Your task to perform on an android device: Open Android settings Image 0: 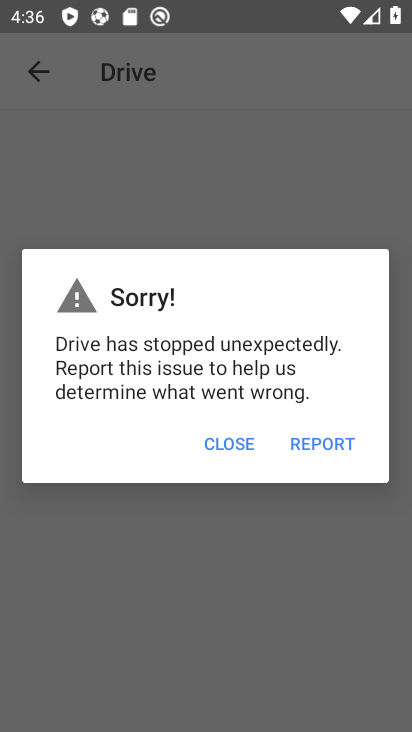
Step 0: press home button
Your task to perform on an android device: Open Android settings Image 1: 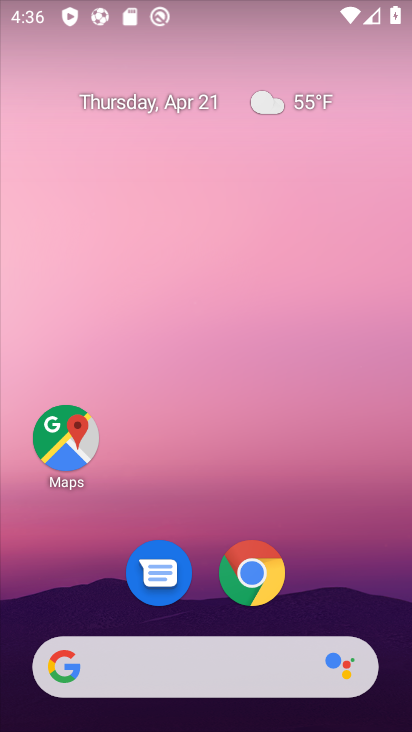
Step 1: drag from (334, 563) to (281, 7)
Your task to perform on an android device: Open Android settings Image 2: 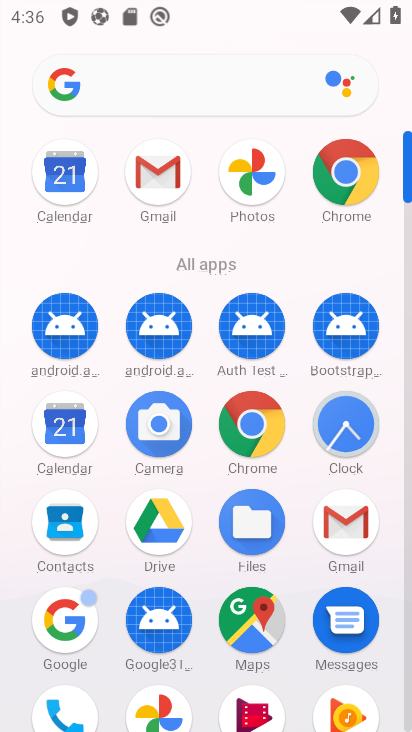
Step 2: click (411, 675)
Your task to perform on an android device: Open Android settings Image 3: 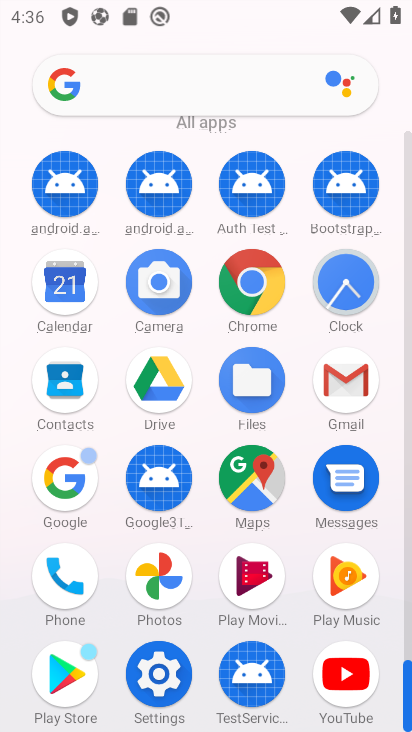
Step 3: click (172, 667)
Your task to perform on an android device: Open Android settings Image 4: 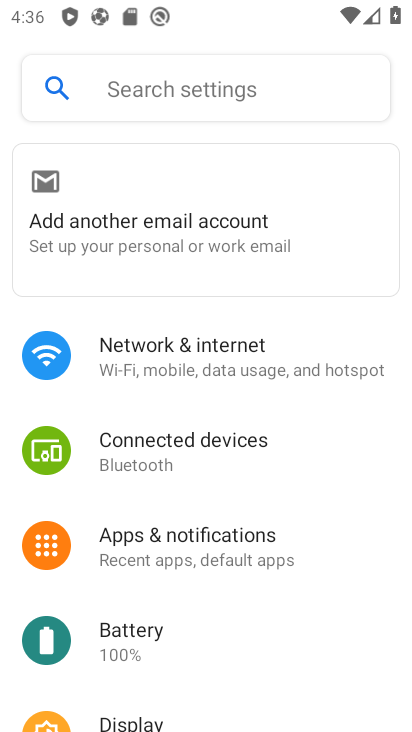
Step 4: task complete